Your task to perform on an android device: Go to Yahoo.com Image 0: 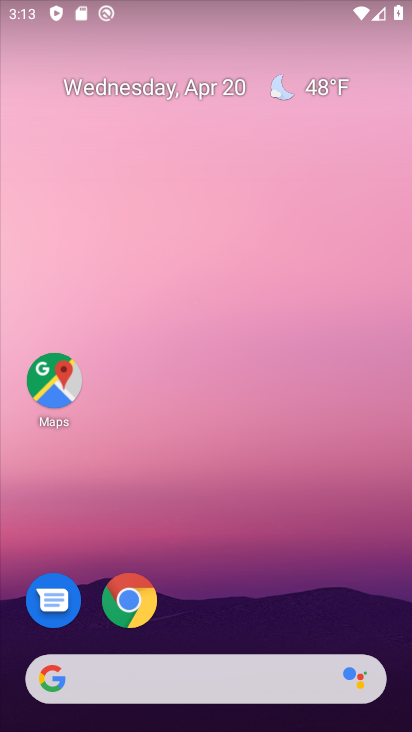
Step 0: drag from (228, 490) to (33, 33)
Your task to perform on an android device: Go to Yahoo.com Image 1: 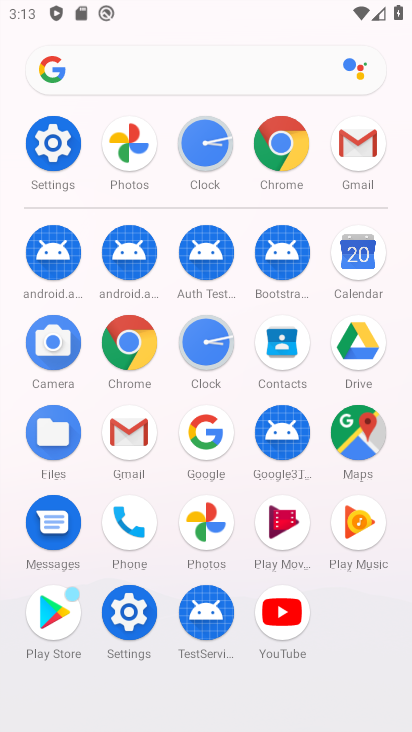
Step 1: click (268, 170)
Your task to perform on an android device: Go to Yahoo.com Image 2: 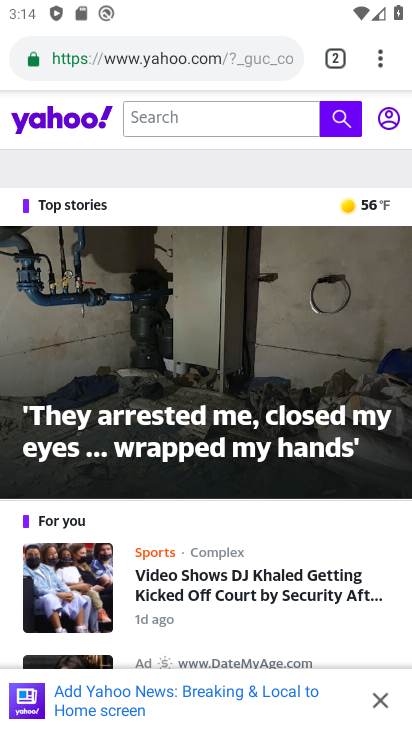
Step 2: task complete